Your task to perform on an android device: search for starred emails in the gmail app Image 0: 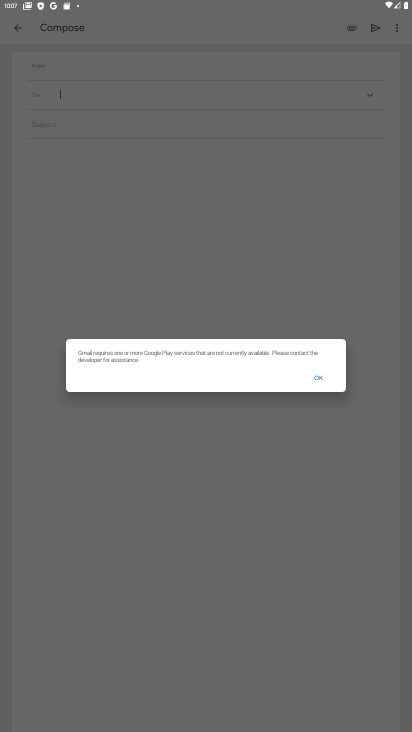
Step 0: press home button
Your task to perform on an android device: search for starred emails in the gmail app Image 1: 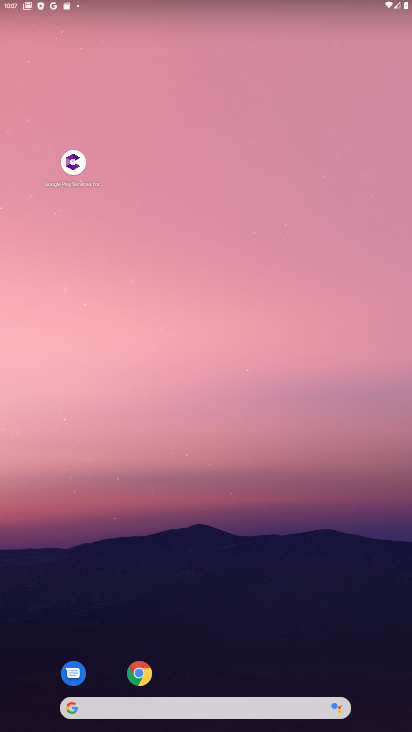
Step 1: drag from (269, 213) to (269, 88)
Your task to perform on an android device: search for starred emails in the gmail app Image 2: 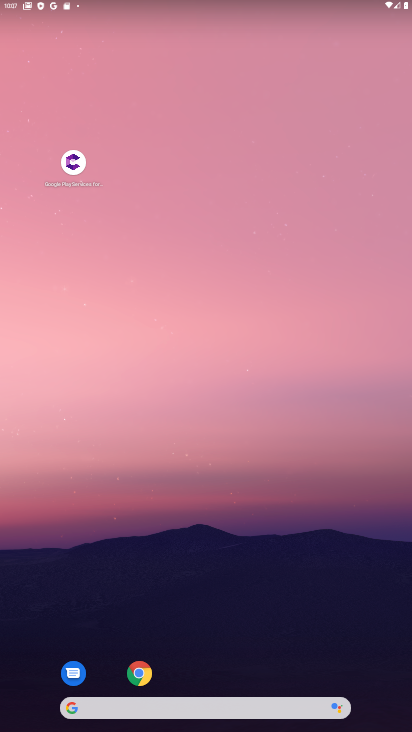
Step 2: drag from (262, 628) to (291, 7)
Your task to perform on an android device: search for starred emails in the gmail app Image 3: 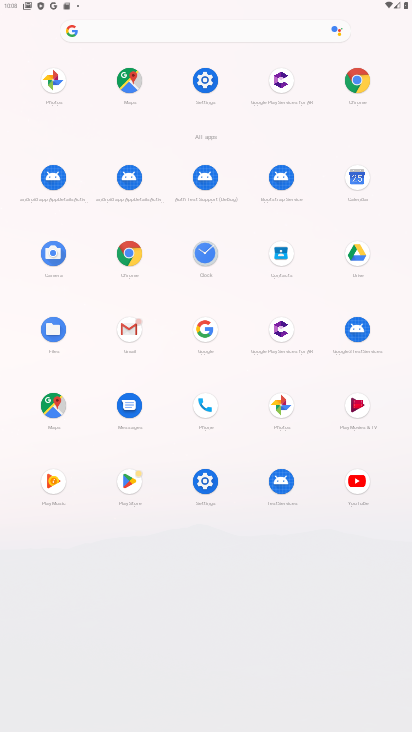
Step 3: click (127, 330)
Your task to perform on an android device: search for starred emails in the gmail app Image 4: 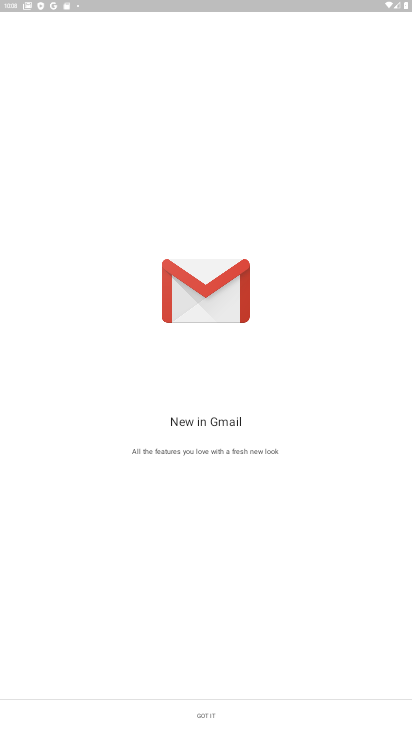
Step 4: click (247, 713)
Your task to perform on an android device: search for starred emails in the gmail app Image 5: 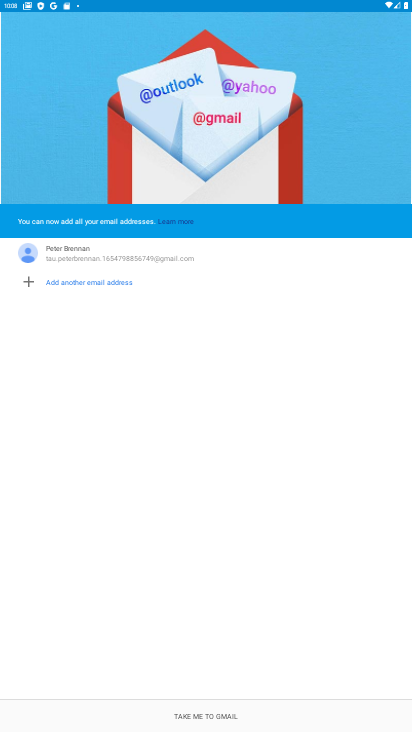
Step 5: click (247, 713)
Your task to perform on an android device: search for starred emails in the gmail app Image 6: 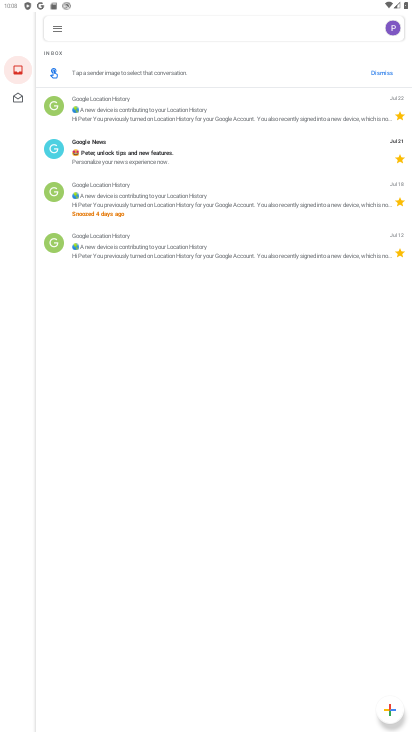
Step 6: click (58, 26)
Your task to perform on an android device: search for starred emails in the gmail app Image 7: 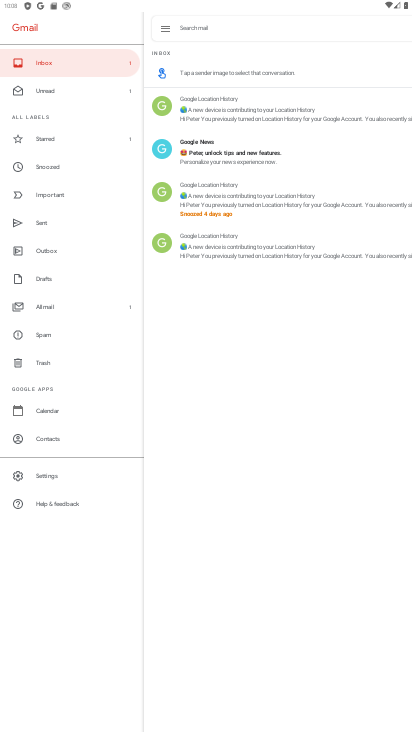
Step 7: click (46, 144)
Your task to perform on an android device: search for starred emails in the gmail app Image 8: 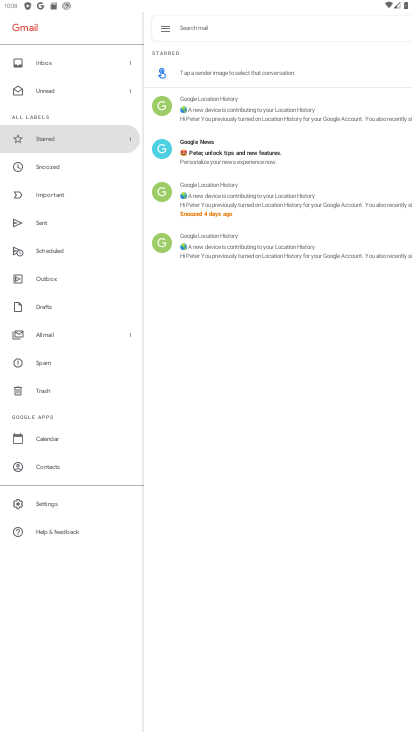
Step 8: task complete